Your task to perform on an android device: Open wifi settings Image 0: 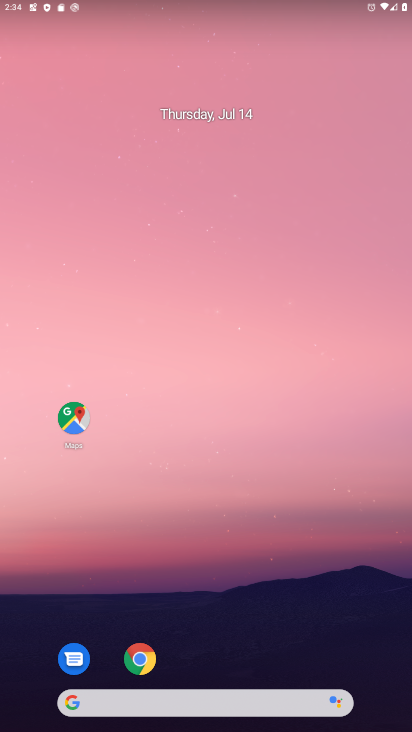
Step 0: press home button
Your task to perform on an android device: Open wifi settings Image 1: 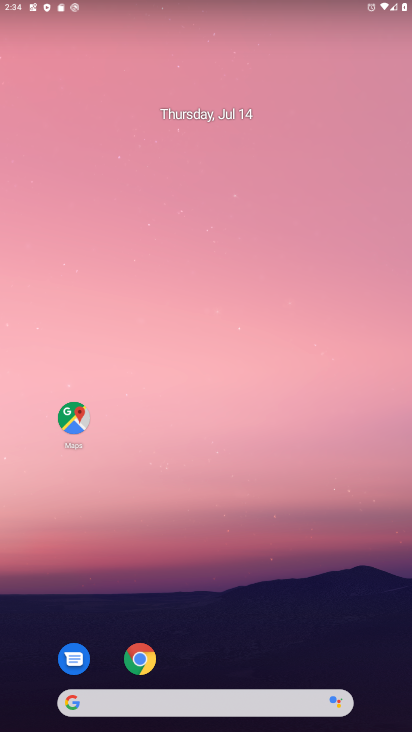
Step 1: drag from (239, 651) to (154, 33)
Your task to perform on an android device: Open wifi settings Image 2: 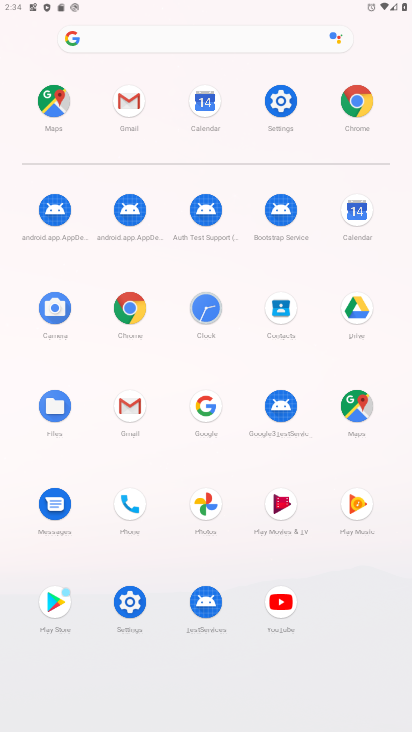
Step 2: click (291, 114)
Your task to perform on an android device: Open wifi settings Image 3: 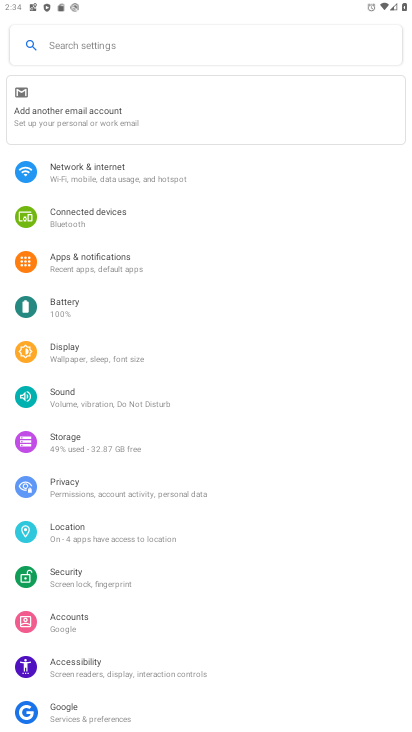
Step 3: click (60, 173)
Your task to perform on an android device: Open wifi settings Image 4: 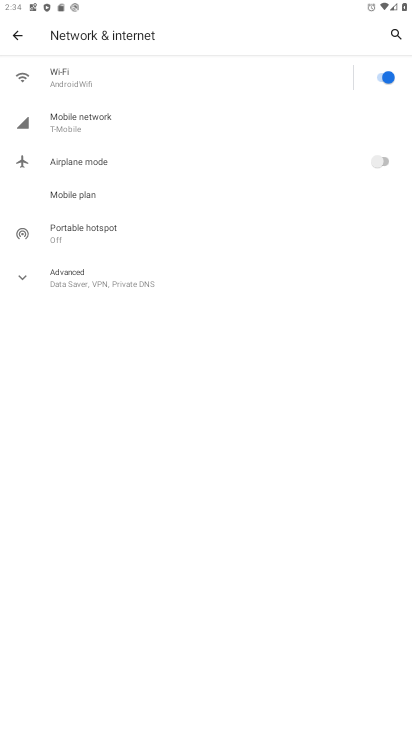
Step 4: click (77, 82)
Your task to perform on an android device: Open wifi settings Image 5: 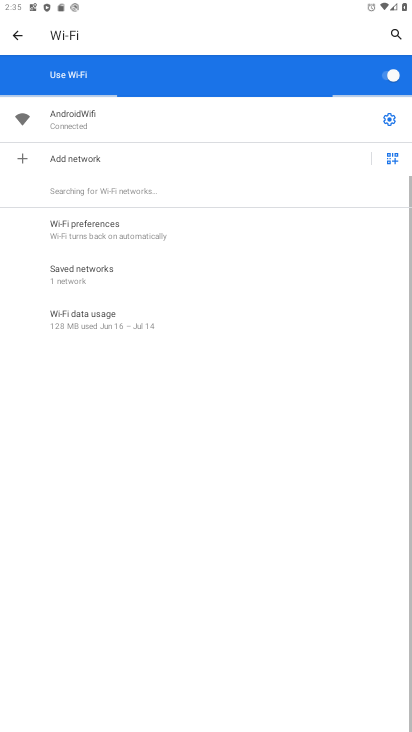
Step 5: task complete